Your task to perform on an android device: toggle location history Image 0: 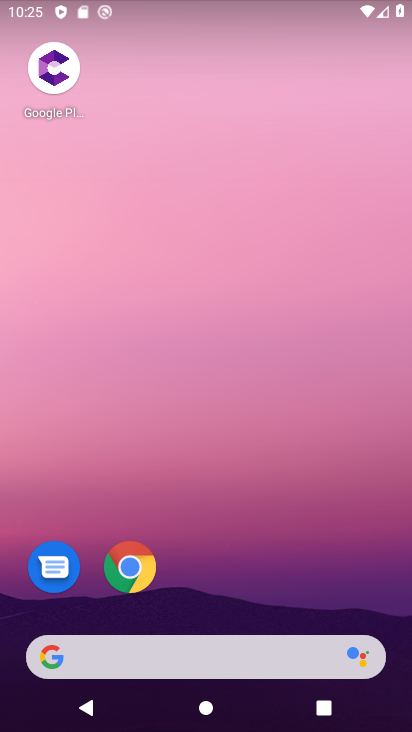
Step 0: drag from (125, 625) to (195, 221)
Your task to perform on an android device: toggle location history Image 1: 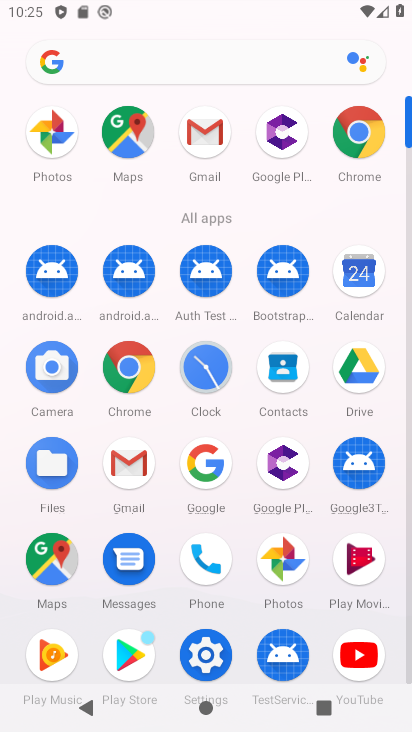
Step 1: click (200, 660)
Your task to perform on an android device: toggle location history Image 2: 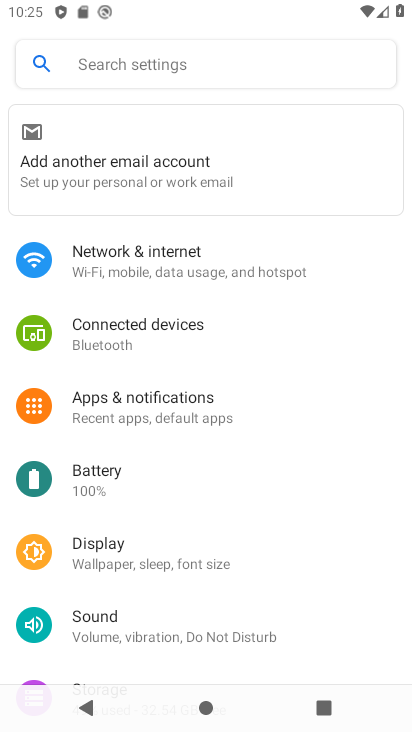
Step 2: drag from (118, 616) to (143, 281)
Your task to perform on an android device: toggle location history Image 3: 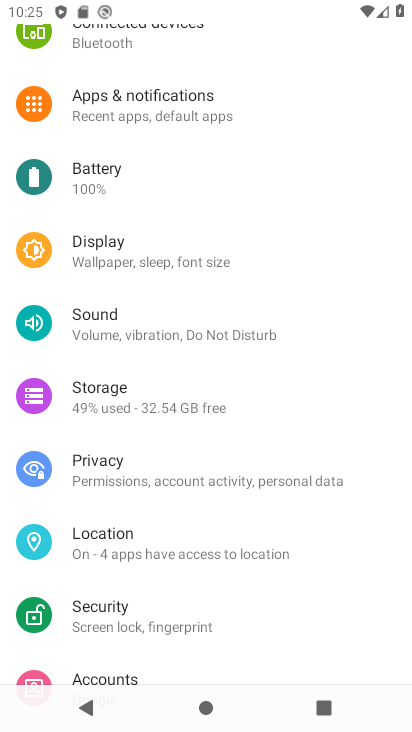
Step 3: click (132, 545)
Your task to perform on an android device: toggle location history Image 4: 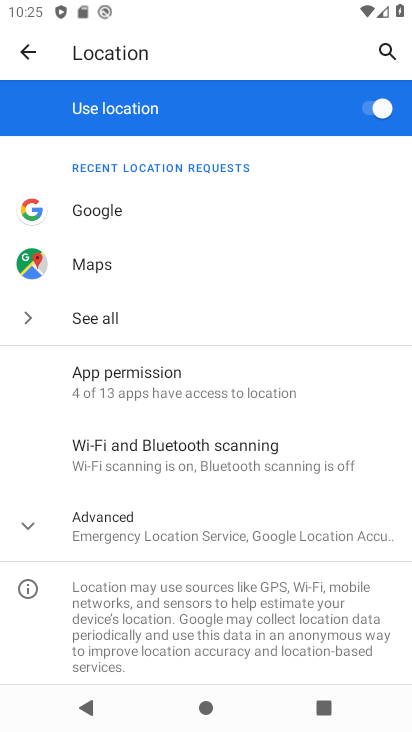
Step 4: click (40, 518)
Your task to perform on an android device: toggle location history Image 5: 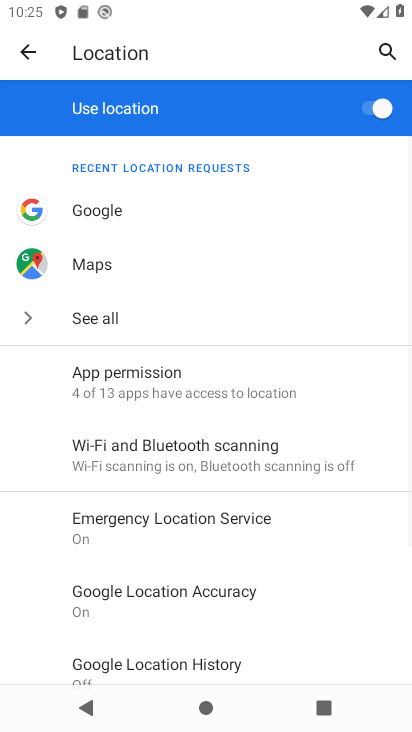
Step 5: drag from (97, 562) to (107, 402)
Your task to perform on an android device: toggle location history Image 6: 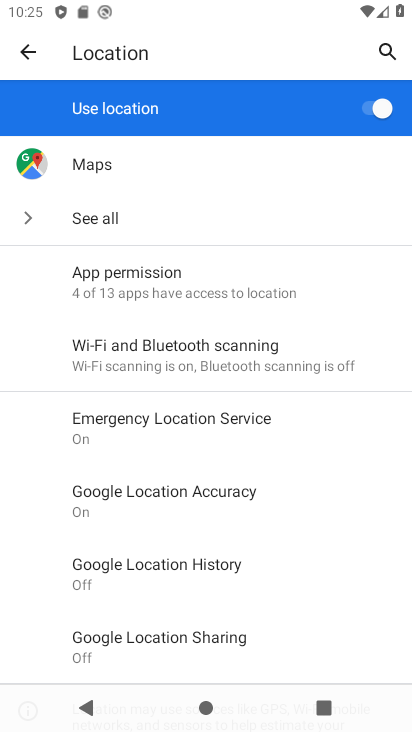
Step 6: click (107, 567)
Your task to perform on an android device: toggle location history Image 7: 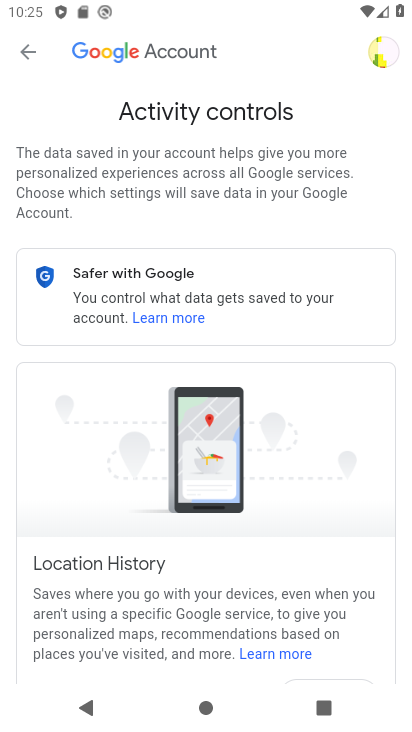
Step 7: drag from (209, 548) to (209, 229)
Your task to perform on an android device: toggle location history Image 8: 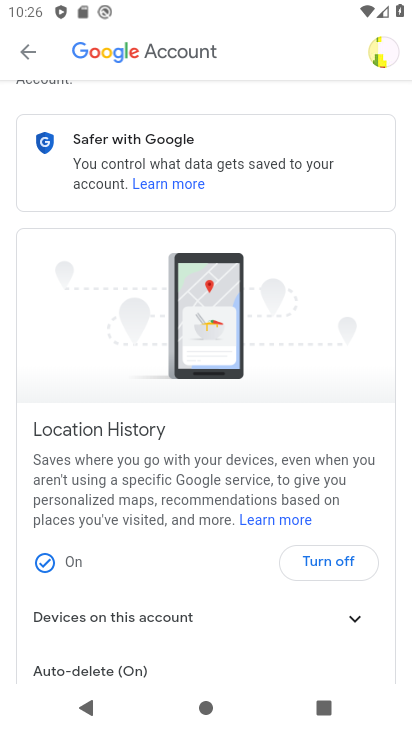
Step 8: click (333, 566)
Your task to perform on an android device: toggle location history Image 9: 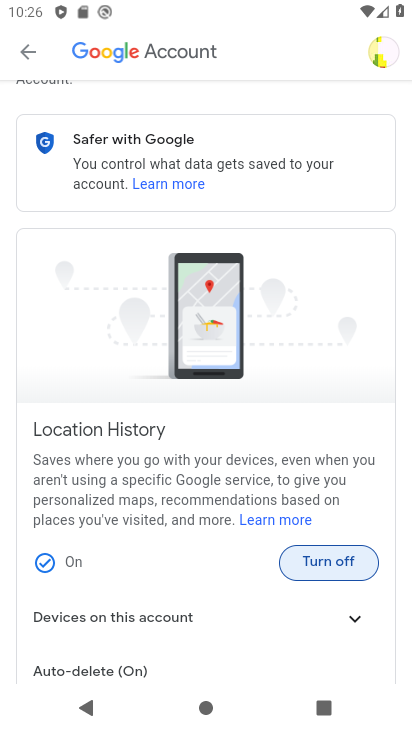
Step 9: task complete